Your task to perform on an android device: turn pop-ups off in chrome Image 0: 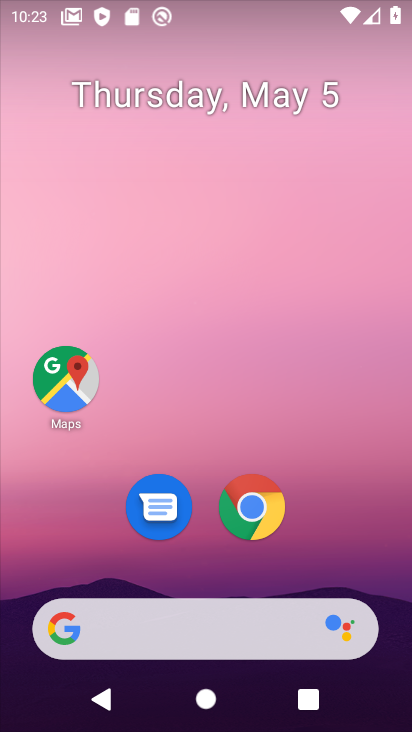
Step 0: click (246, 512)
Your task to perform on an android device: turn pop-ups off in chrome Image 1: 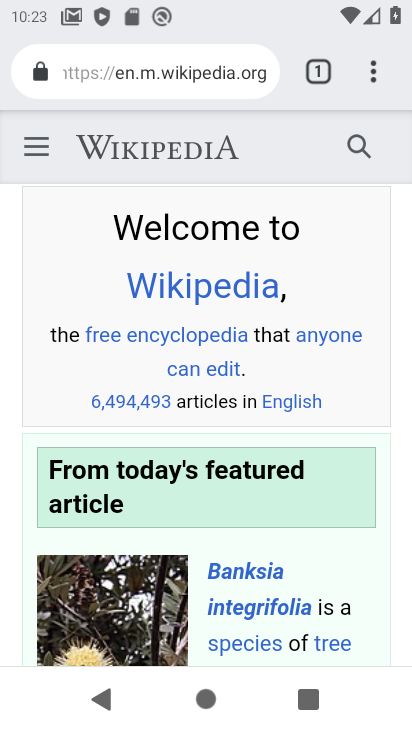
Step 1: drag from (374, 72) to (140, 507)
Your task to perform on an android device: turn pop-ups off in chrome Image 2: 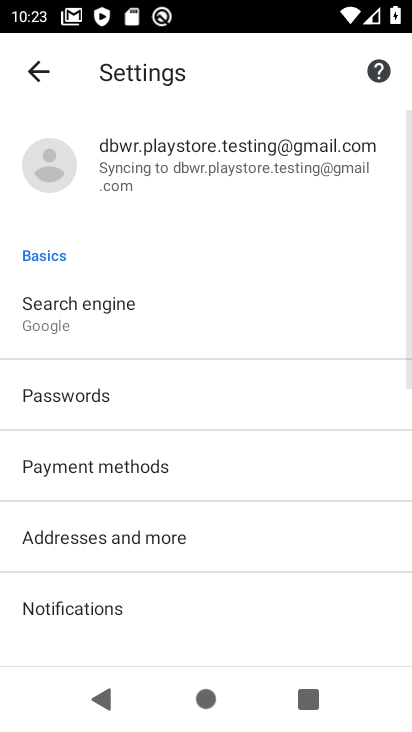
Step 2: drag from (234, 539) to (237, 167)
Your task to perform on an android device: turn pop-ups off in chrome Image 3: 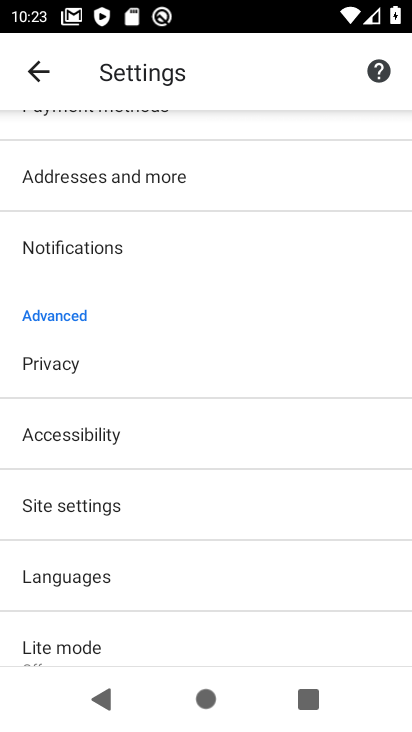
Step 3: drag from (203, 503) to (217, 218)
Your task to perform on an android device: turn pop-ups off in chrome Image 4: 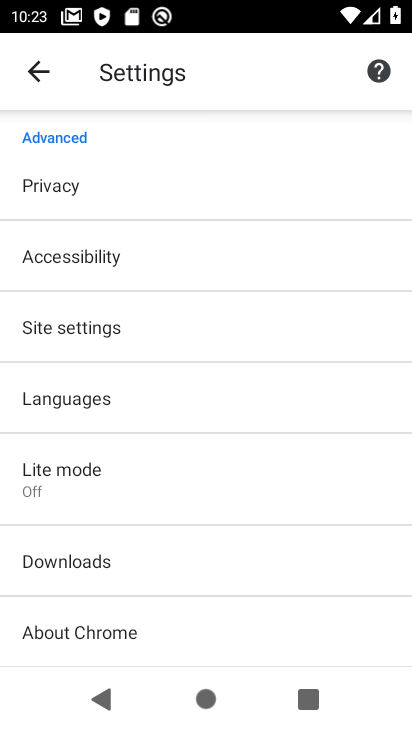
Step 4: click (52, 334)
Your task to perform on an android device: turn pop-ups off in chrome Image 5: 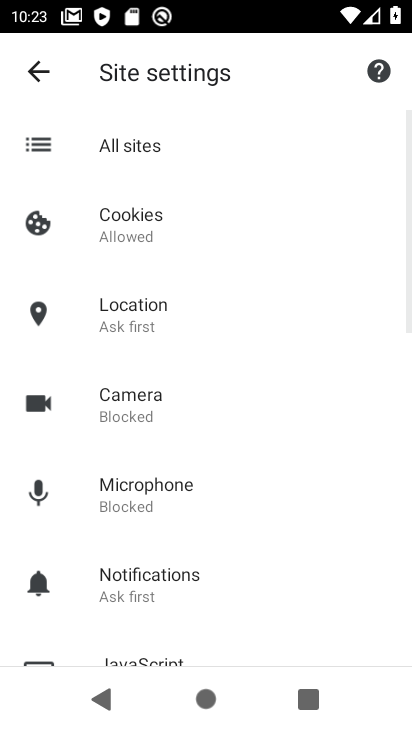
Step 5: drag from (267, 569) to (262, 211)
Your task to perform on an android device: turn pop-ups off in chrome Image 6: 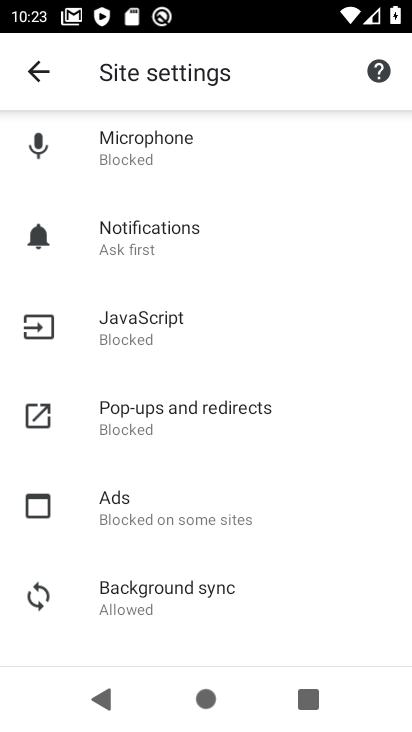
Step 6: click (121, 415)
Your task to perform on an android device: turn pop-ups off in chrome Image 7: 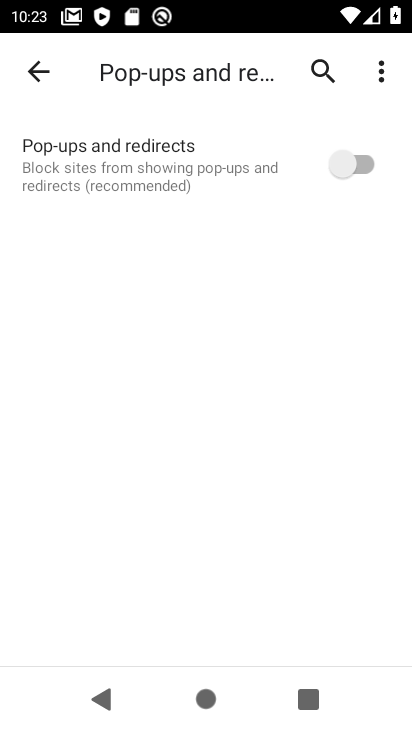
Step 7: task complete